Your task to perform on an android device: change notification settings in the gmail app Image 0: 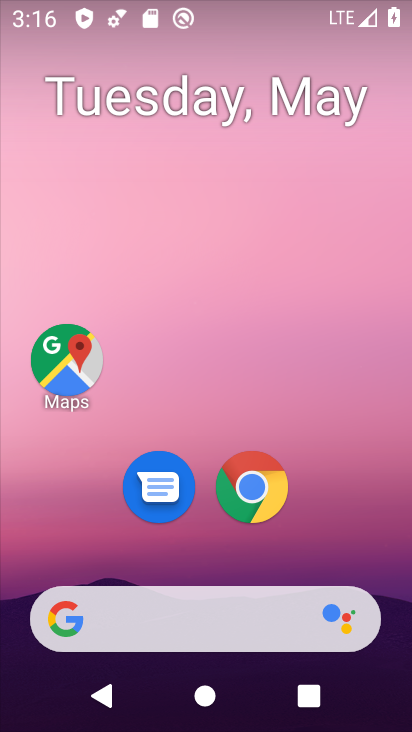
Step 0: drag from (320, 517) to (182, 74)
Your task to perform on an android device: change notification settings in the gmail app Image 1: 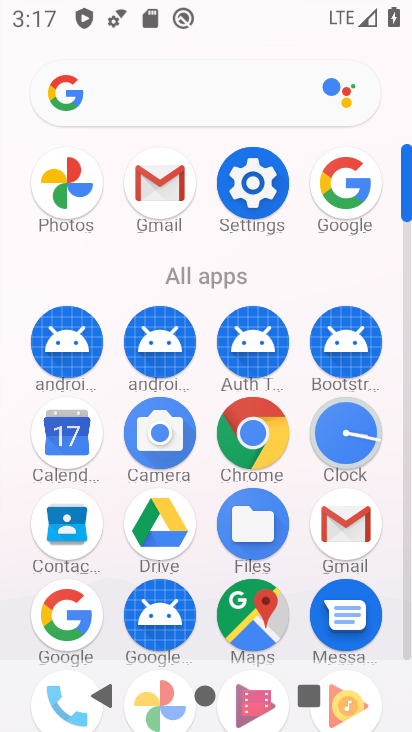
Step 1: click (159, 196)
Your task to perform on an android device: change notification settings in the gmail app Image 2: 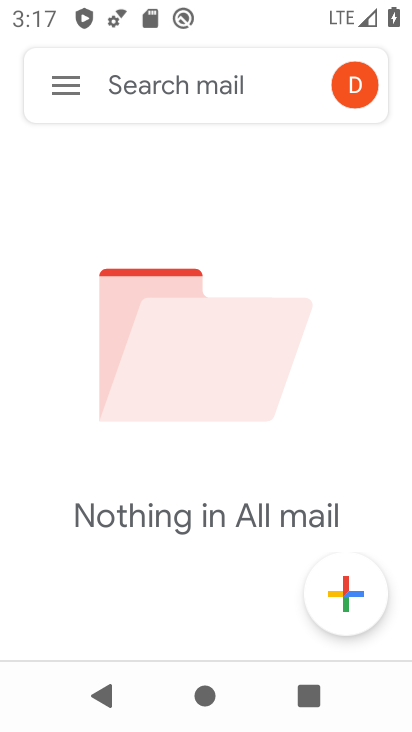
Step 2: click (74, 92)
Your task to perform on an android device: change notification settings in the gmail app Image 3: 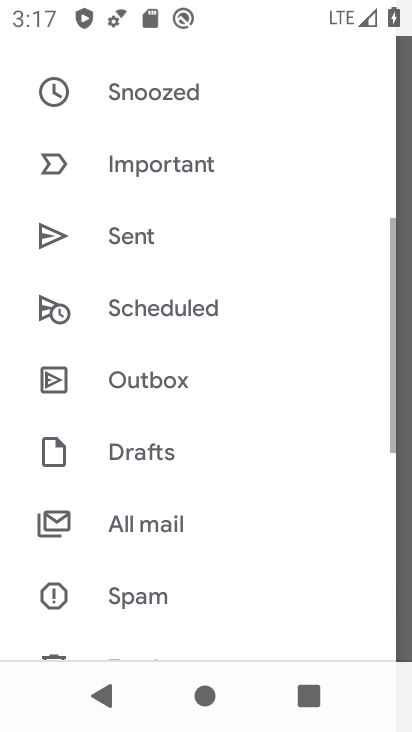
Step 3: drag from (174, 555) to (148, 95)
Your task to perform on an android device: change notification settings in the gmail app Image 4: 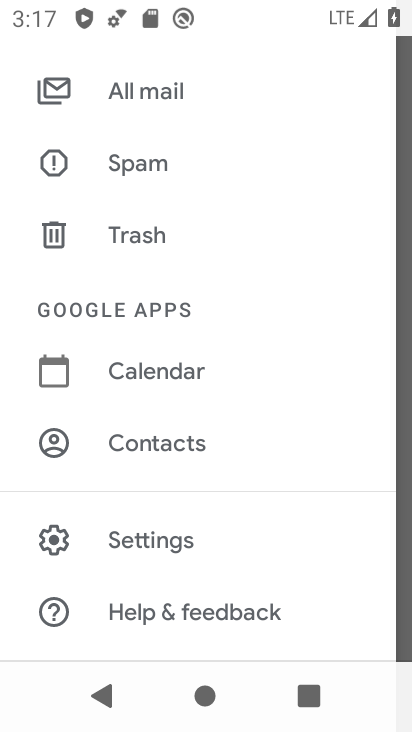
Step 4: click (169, 528)
Your task to perform on an android device: change notification settings in the gmail app Image 5: 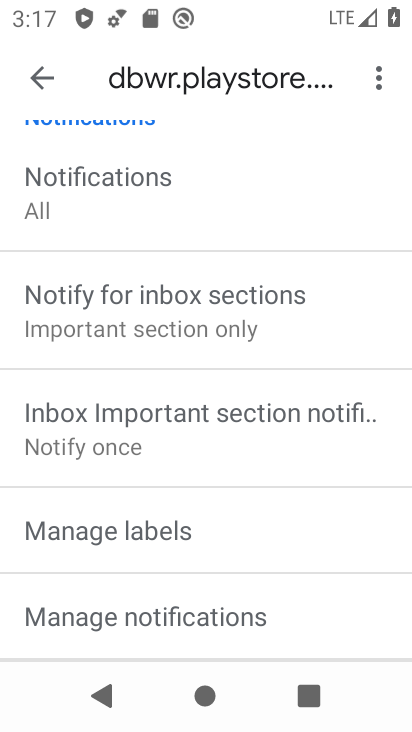
Step 5: drag from (211, 615) to (255, 357)
Your task to perform on an android device: change notification settings in the gmail app Image 6: 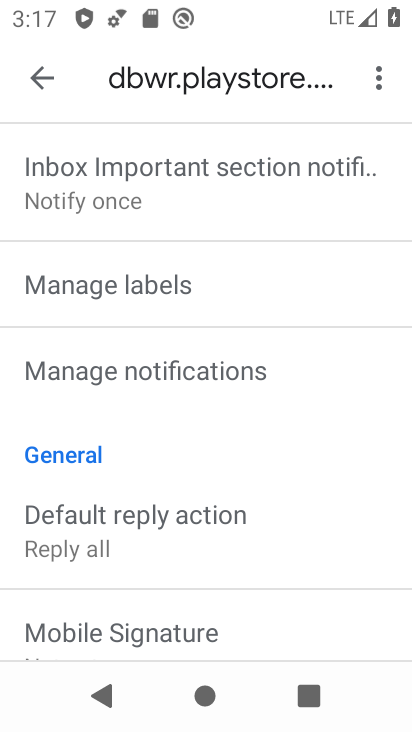
Step 6: click (189, 369)
Your task to perform on an android device: change notification settings in the gmail app Image 7: 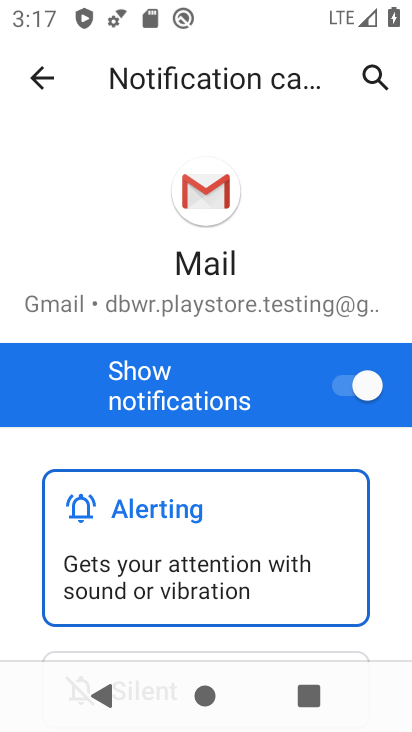
Step 7: task complete